Your task to perform on an android device: read, delete, or share a saved page in the chrome app Image 0: 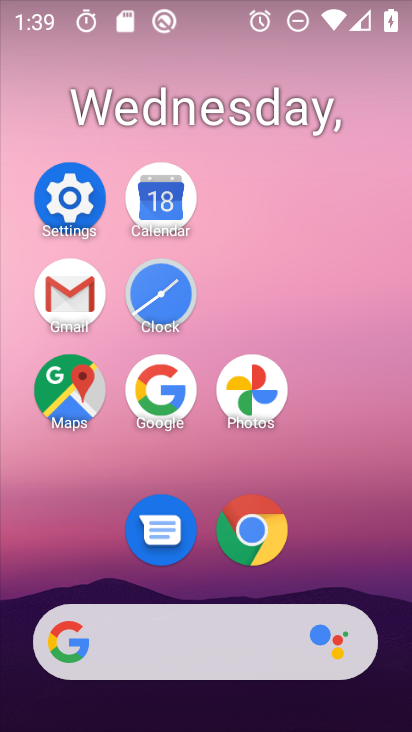
Step 0: click (266, 526)
Your task to perform on an android device: read, delete, or share a saved page in the chrome app Image 1: 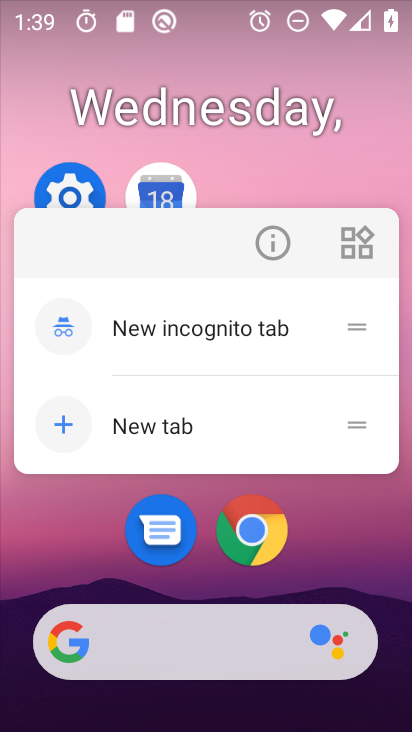
Step 1: click (254, 541)
Your task to perform on an android device: read, delete, or share a saved page in the chrome app Image 2: 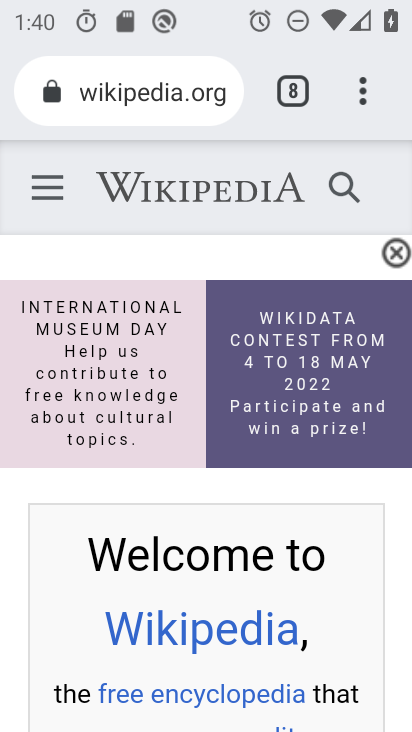
Step 2: click (378, 94)
Your task to perform on an android device: read, delete, or share a saved page in the chrome app Image 3: 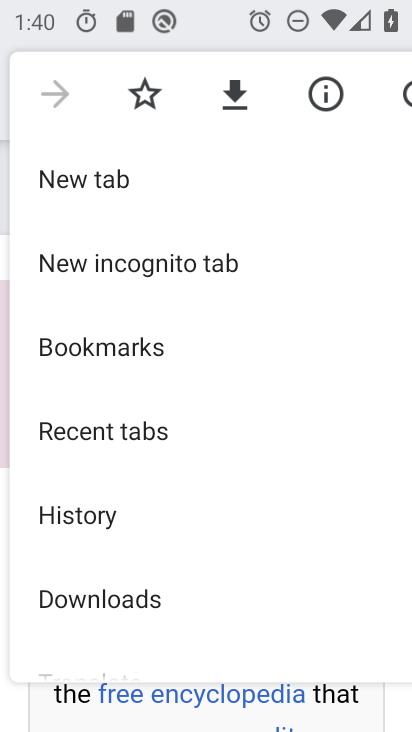
Step 3: drag from (177, 556) to (191, 162)
Your task to perform on an android device: read, delete, or share a saved page in the chrome app Image 4: 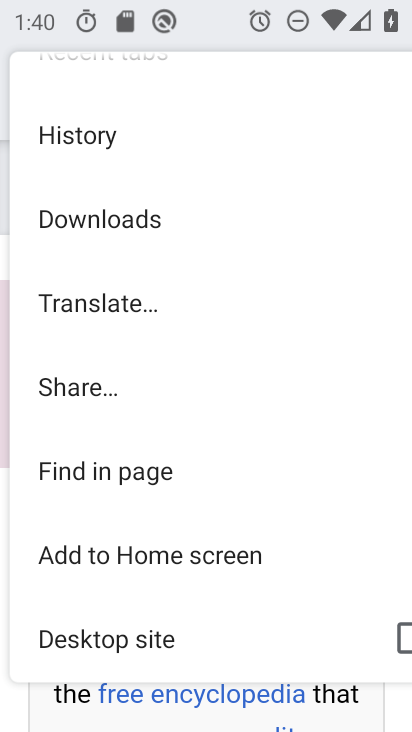
Step 4: click (165, 247)
Your task to perform on an android device: read, delete, or share a saved page in the chrome app Image 5: 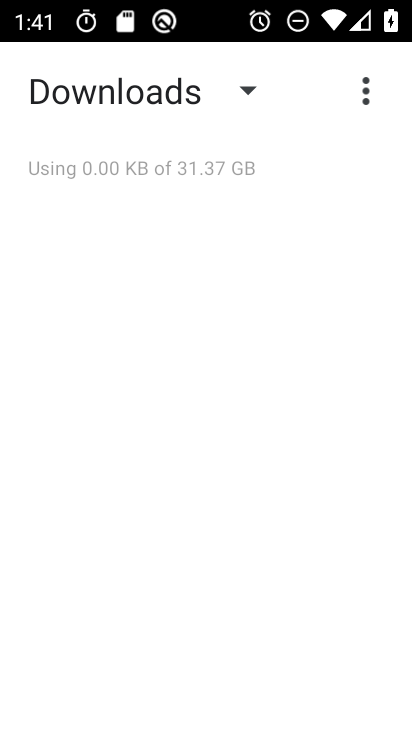
Step 5: task complete